Your task to perform on an android device: Do I have any events today? Image 0: 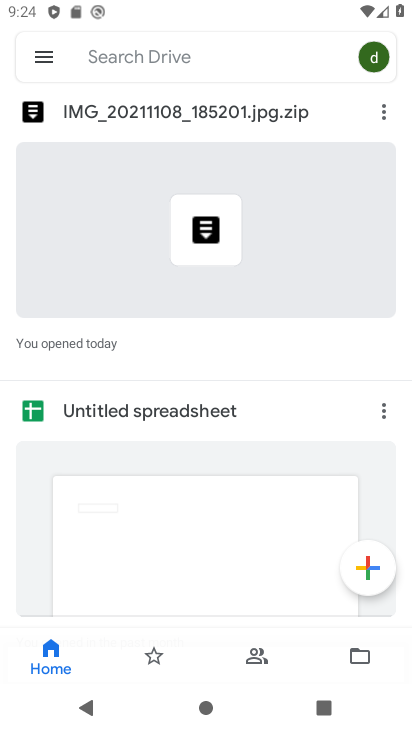
Step 0: press home button
Your task to perform on an android device: Do I have any events today? Image 1: 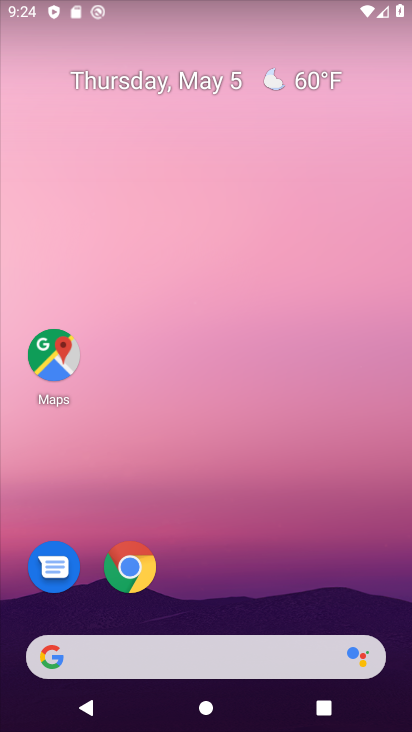
Step 1: drag from (227, 591) to (227, 63)
Your task to perform on an android device: Do I have any events today? Image 2: 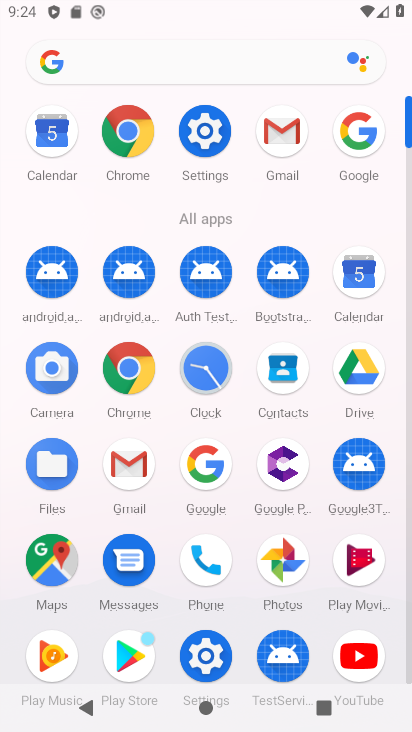
Step 2: click (341, 285)
Your task to perform on an android device: Do I have any events today? Image 3: 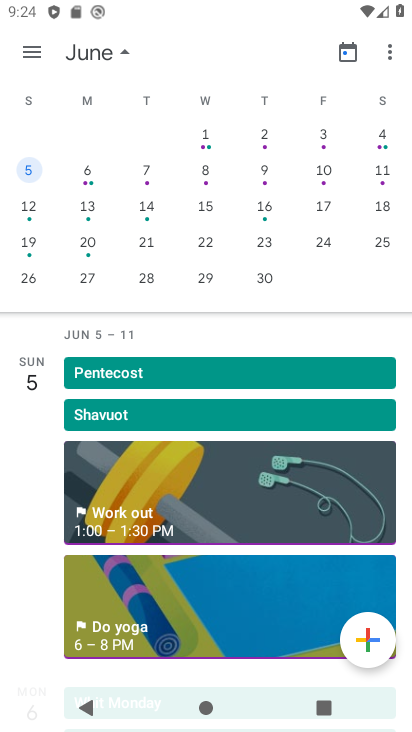
Step 3: drag from (73, 206) to (371, 201)
Your task to perform on an android device: Do I have any events today? Image 4: 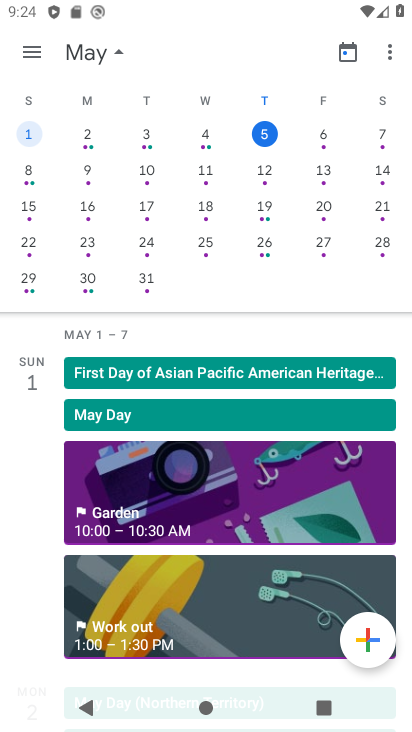
Step 4: click (271, 140)
Your task to perform on an android device: Do I have any events today? Image 5: 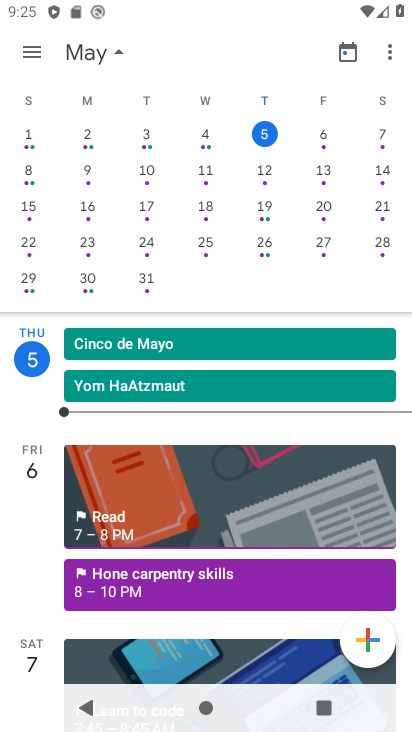
Step 5: click (261, 141)
Your task to perform on an android device: Do I have any events today? Image 6: 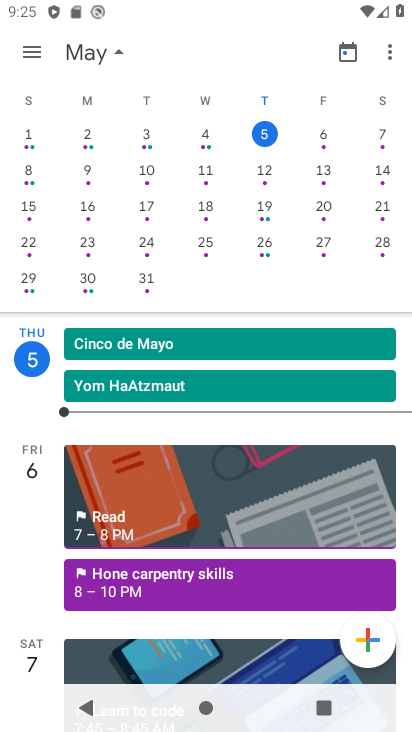
Step 6: task complete